Your task to perform on an android device: see tabs open on other devices in the chrome app Image 0: 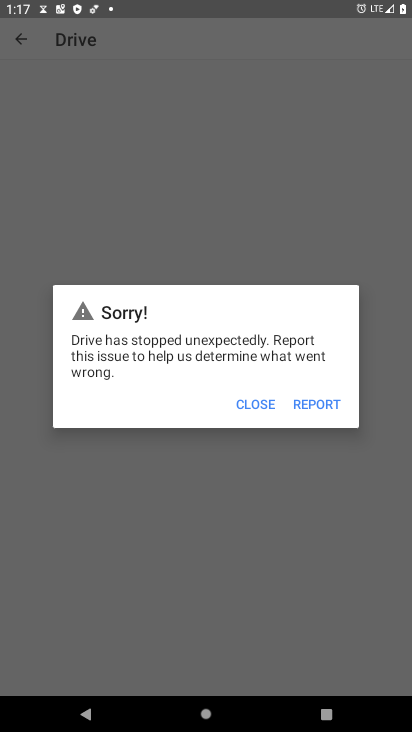
Step 0: press home button
Your task to perform on an android device: see tabs open on other devices in the chrome app Image 1: 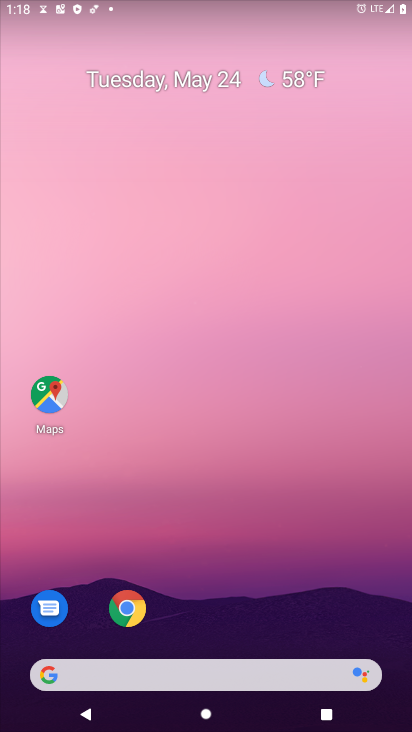
Step 1: drag from (283, 693) to (238, 137)
Your task to perform on an android device: see tabs open on other devices in the chrome app Image 2: 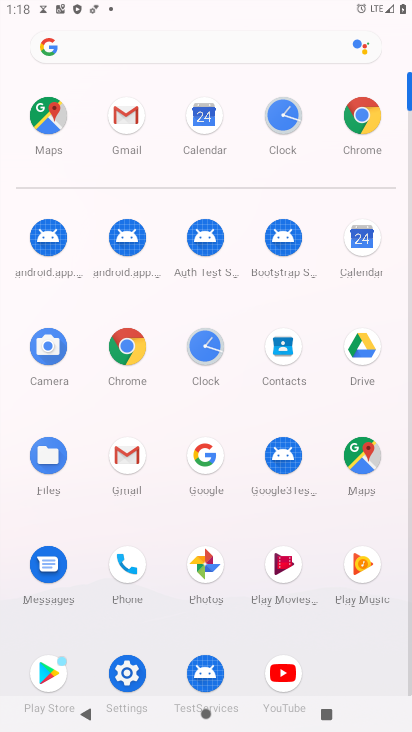
Step 2: click (101, 338)
Your task to perform on an android device: see tabs open on other devices in the chrome app Image 3: 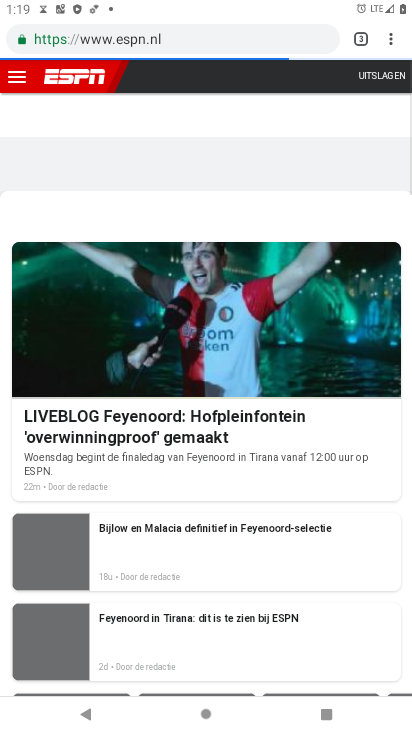
Step 3: click (351, 46)
Your task to perform on an android device: see tabs open on other devices in the chrome app Image 4: 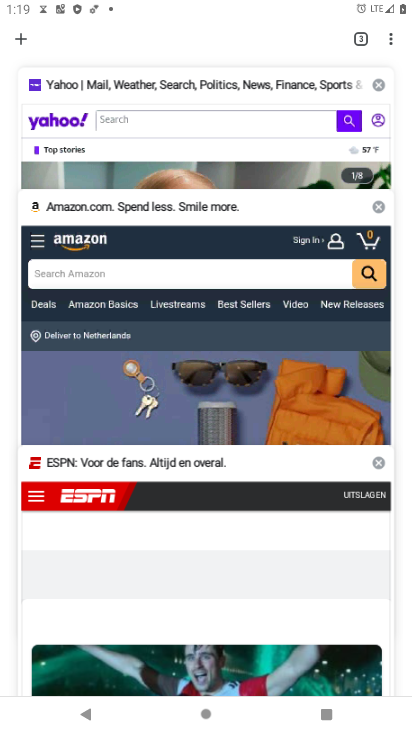
Step 4: click (23, 38)
Your task to perform on an android device: see tabs open on other devices in the chrome app Image 5: 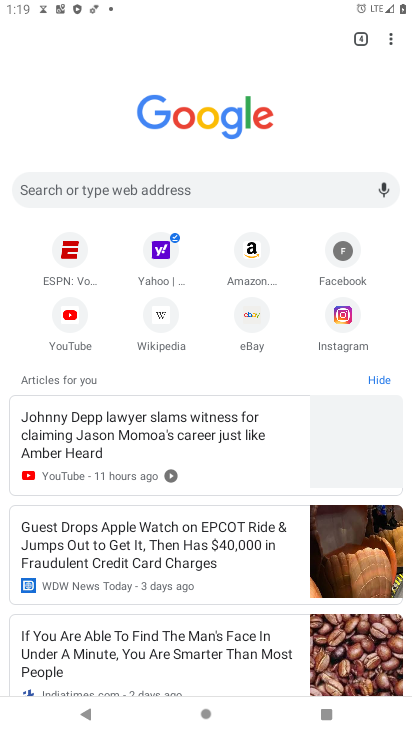
Step 5: task complete